Your task to perform on an android device: toggle notifications settings in the gmail app Image 0: 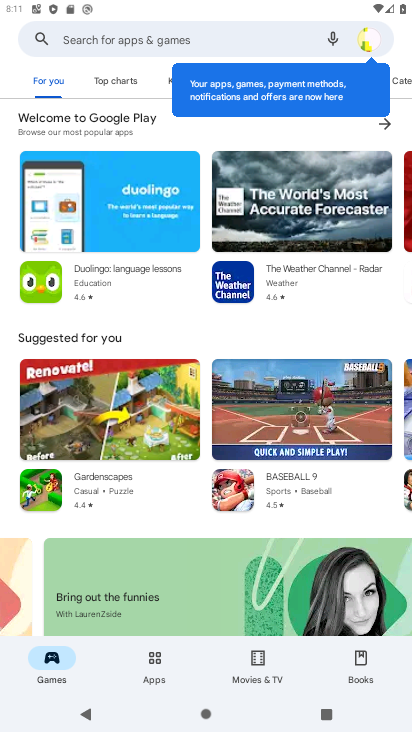
Step 0: press back button
Your task to perform on an android device: toggle notifications settings in the gmail app Image 1: 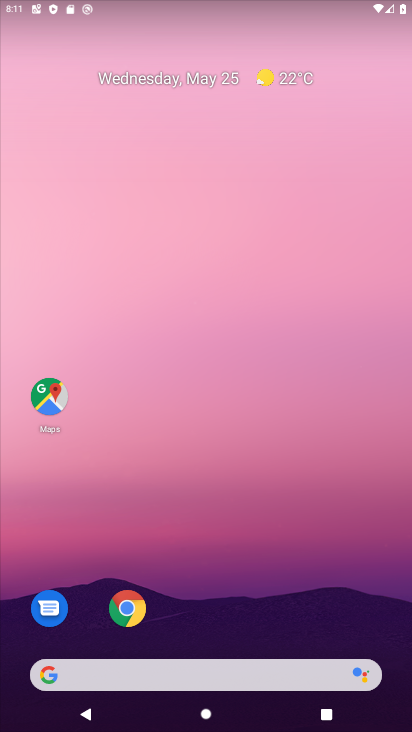
Step 1: drag from (278, 605) to (278, 239)
Your task to perform on an android device: toggle notifications settings in the gmail app Image 2: 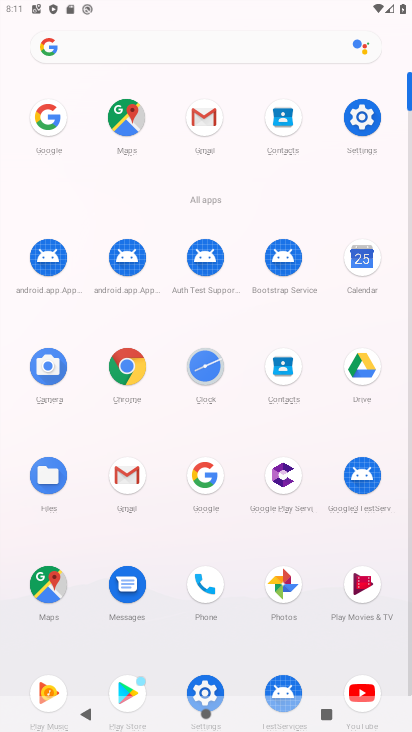
Step 2: click (200, 116)
Your task to perform on an android device: toggle notifications settings in the gmail app Image 3: 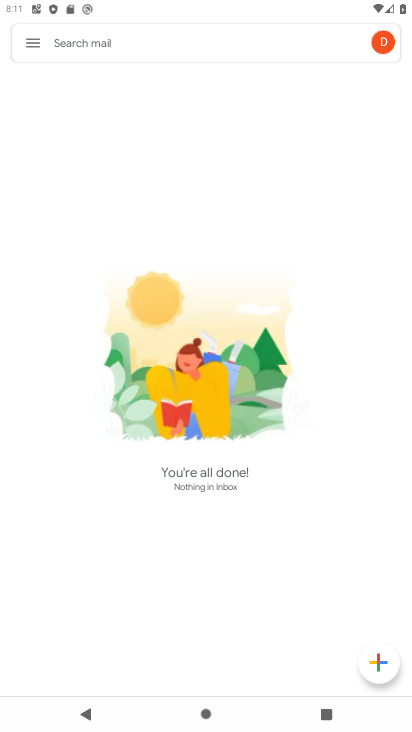
Step 3: click (34, 43)
Your task to perform on an android device: toggle notifications settings in the gmail app Image 4: 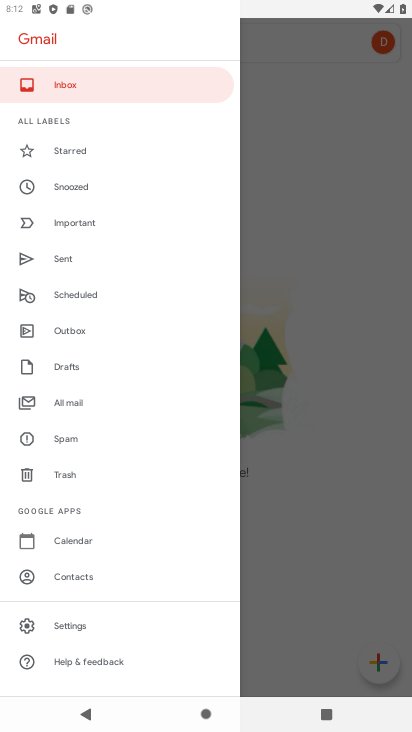
Step 4: click (72, 625)
Your task to perform on an android device: toggle notifications settings in the gmail app Image 5: 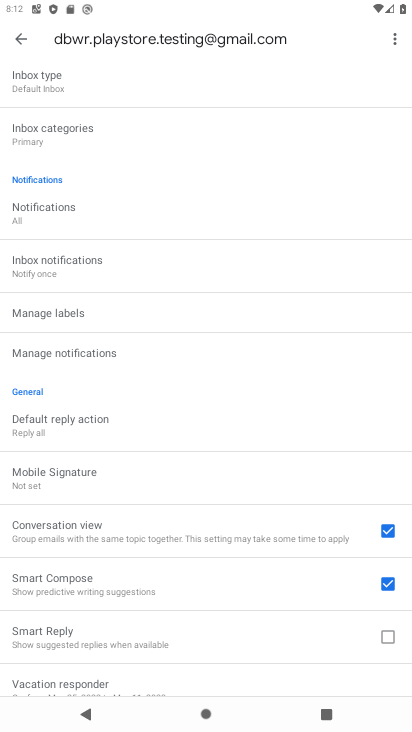
Step 5: click (96, 350)
Your task to perform on an android device: toggle notifications settings in the gmail app Image 6: 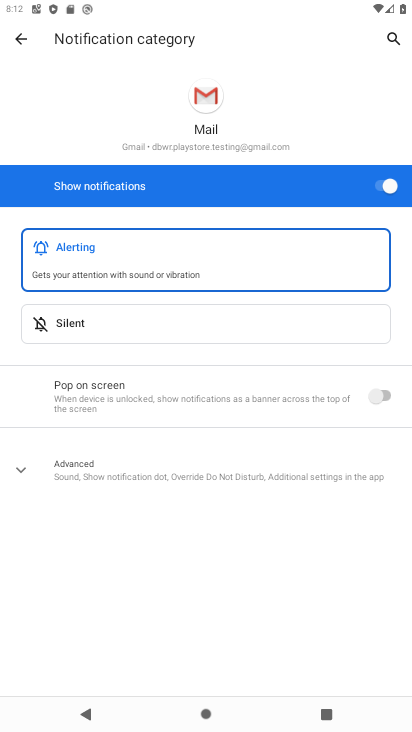
Step 6: click (381, 189)
Your task to perform on an android device: toggle notifications settings in the gmail app Image 7: 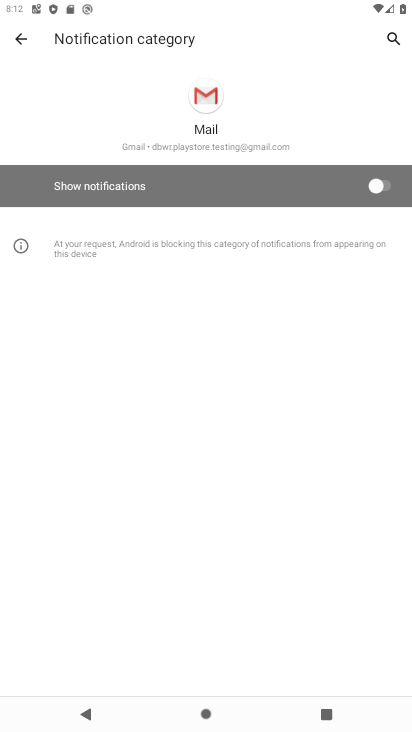
Step 7: task complete